Your task to perform on an android device: open a new tab in the chrome app Image 0: 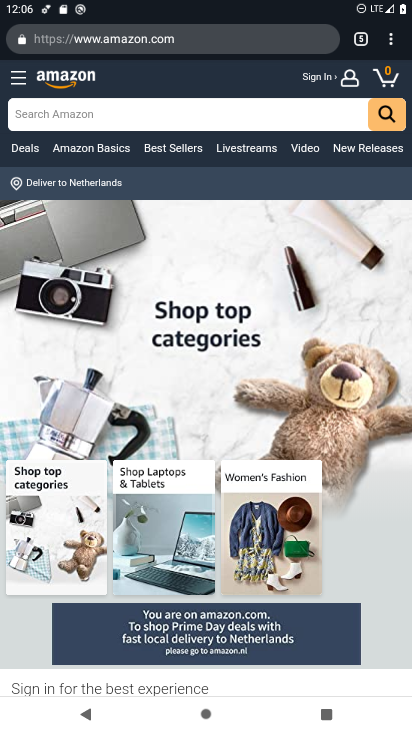
Step 0: click (364, 38)
Your task to perform on an android device: open a new tab in the chrome app Image 1: 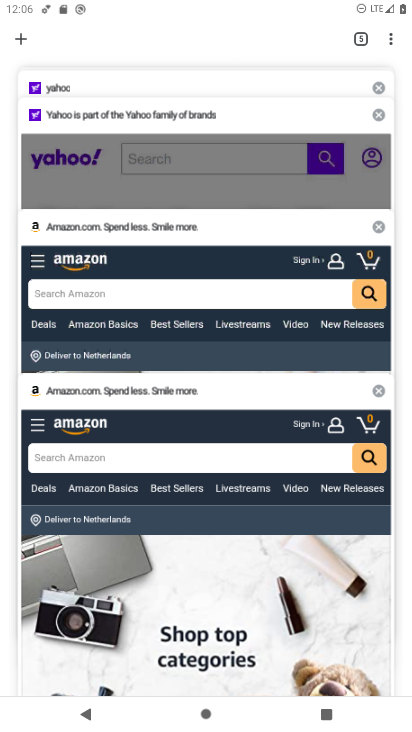
Step 1: click (26, 37)
Your task to perform on an android device: open a new tab in the chrome app Image 2: 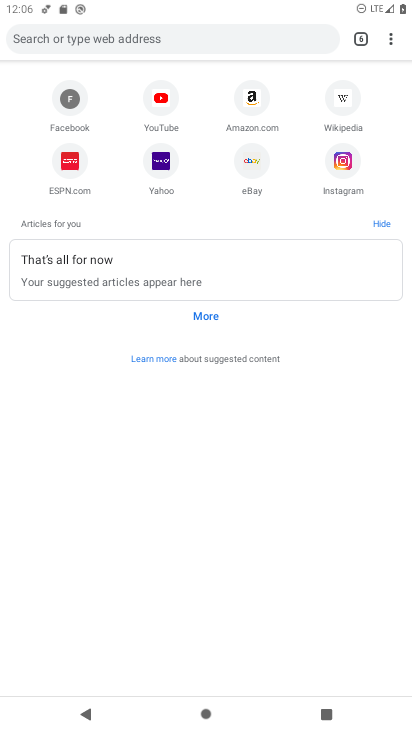
Step 2: task complete